Your task to perform on an android device: turn on notifications settings in the gmail app Image 0: 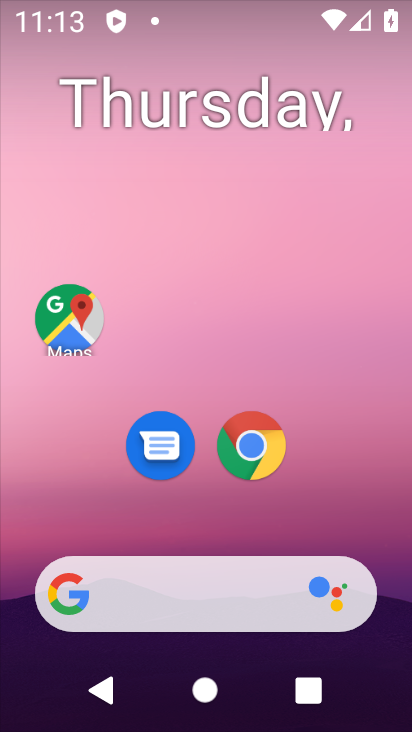
Step 0: drag from (399, 618) to (263, 57)
Your task to perform on an android device: turn on notifications settings in the gmail app Image 1: 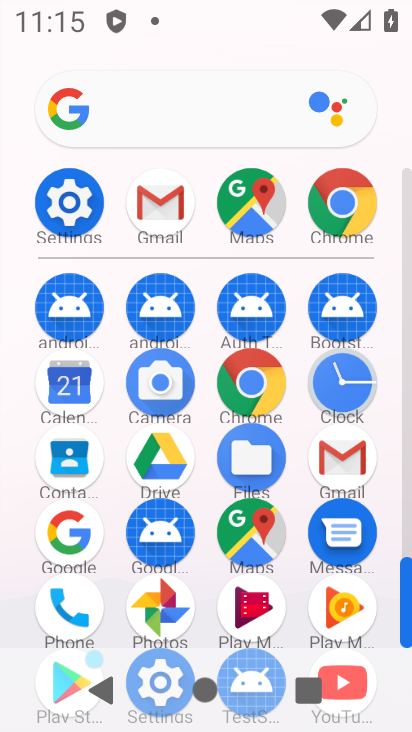
Step 1: click (338, 469)
Your task to perform on an android device: turn on notifications settings in the gmail app Image 2: 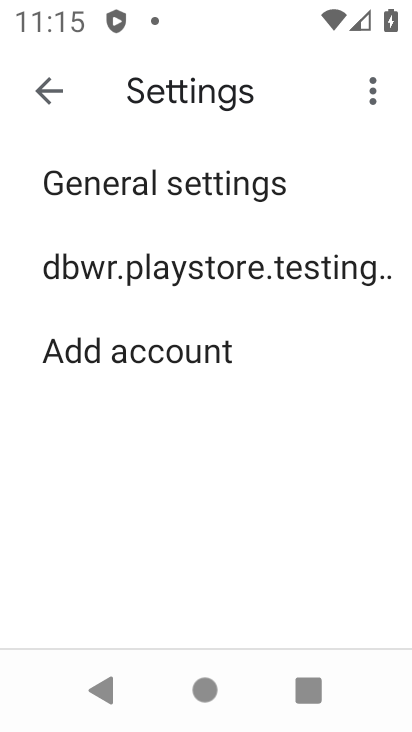
Step 2: click (226, 273)
Your task to perform on an android device: turn on notifications settings in the gmail app Image 3: 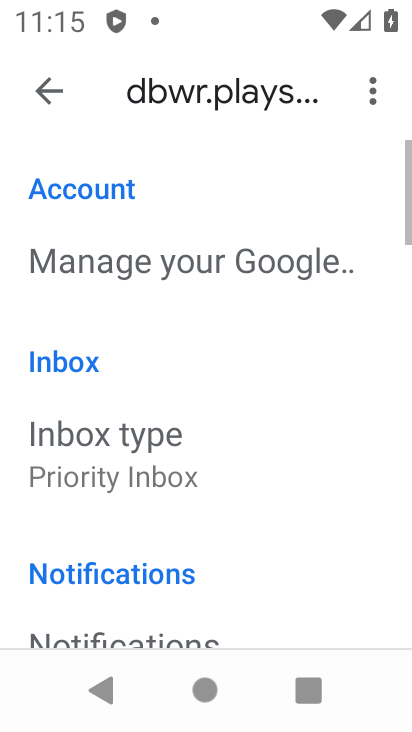
Step 3: task complete